Your task to perform on an android device: move an email to a new category in the gmail app Image 0: 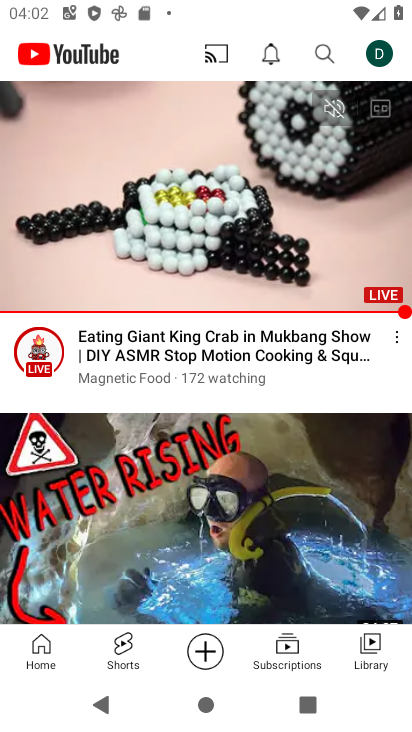
Step 0: press home button
Your task to perform on an android device: move an email to a new category in the gmail app Image 1: 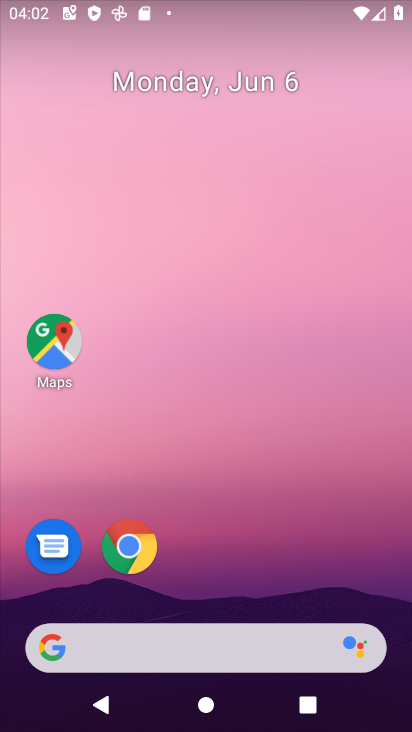
Step 1: drag from (254, 591) to (303, 121)
Your task to perform on an android device: move an email to a new category in the gmail app Image 2: 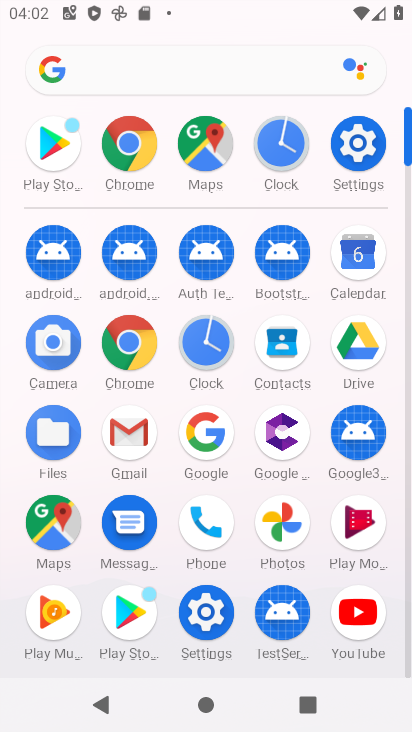
Step 2: click (139, 437)
Your task to perform on an android device: move an email to a new category in the gmail app Image 3: 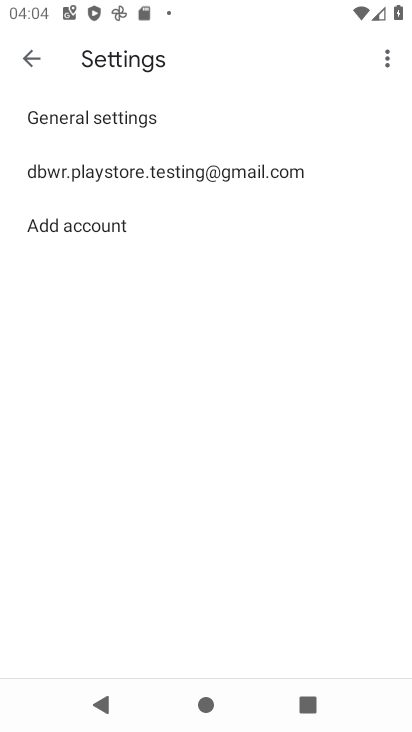
Step 3: task complete